Your task to perform on an android device: toggle sleep mode Image 0: 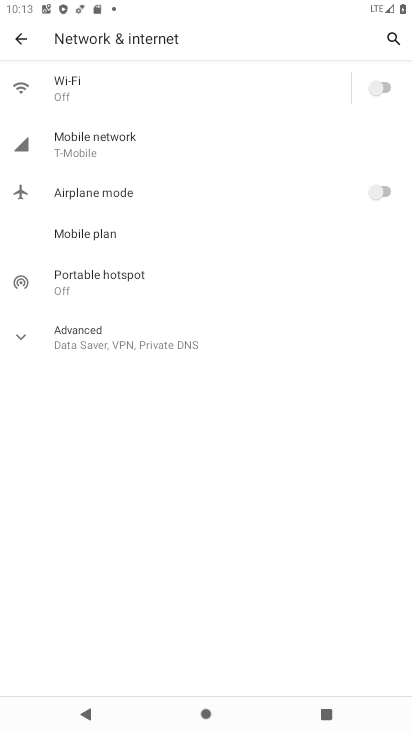
Step 0: press home button
Your task to perform on an android device: toggle sleep mode Image 1: 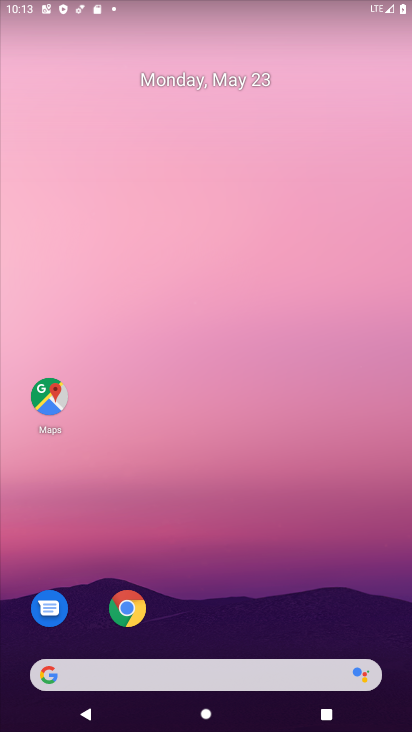
Step 1: drag from (169, 629) to (305, 55)
Your task to perform on an android device: toggle sleep mode Image 2: 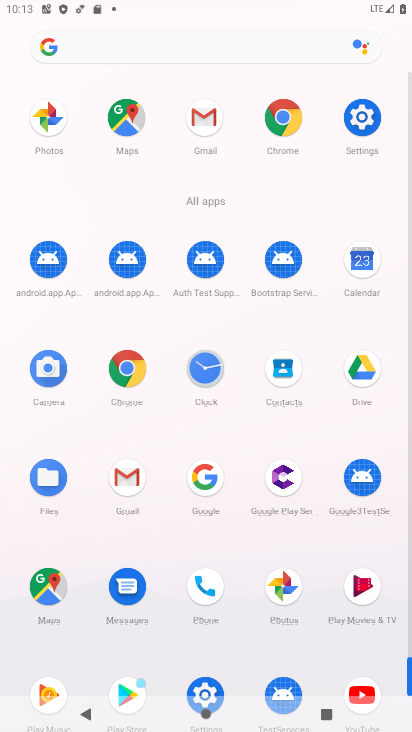
Step 2: drag from (196, 677) to (243, 456)
Your task to perform on an android device: toggle sleep mode Image 3: 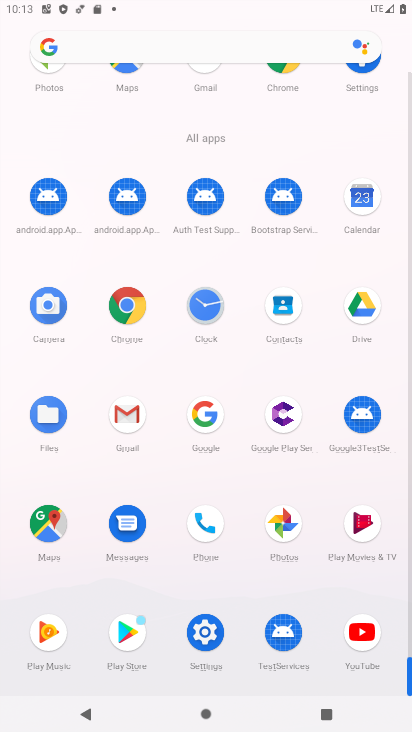
Step 3: click (216, 634)
Your task to perform on an android device: toggle sleep mode Image 4: 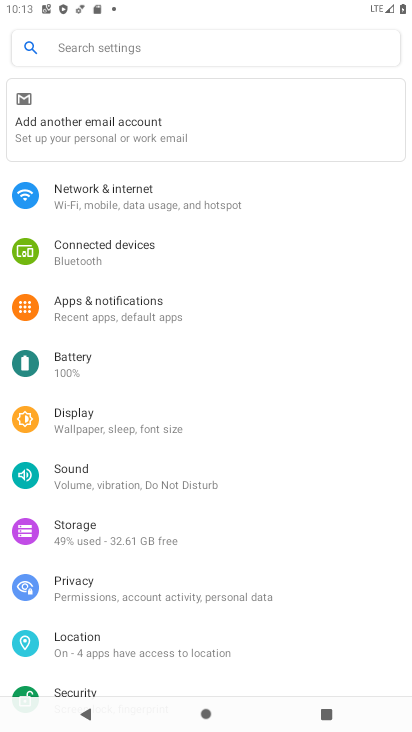
Step 4: click (103, 430)
Your task to perform on an android device: toggle sleep mode Image 5: 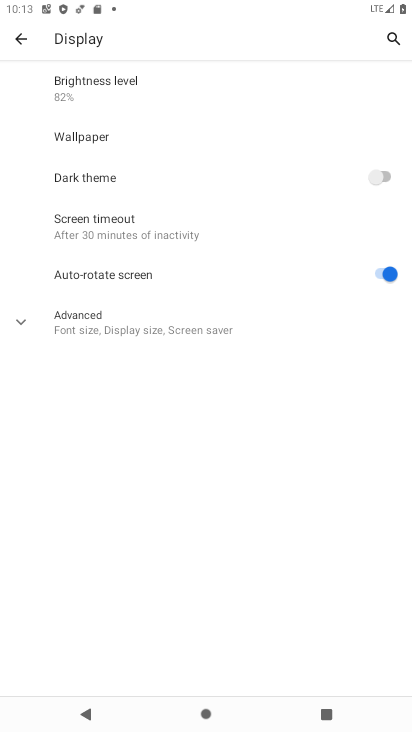
Step 5: click (127, 324)
Your task to perform on an android device: toggle sleep mode Image 6: 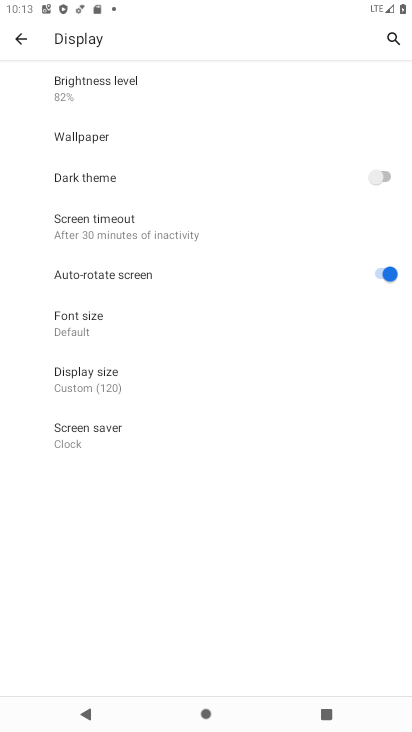
Step 6: task complete